Your task to perform on an android device: change the upload size in google photos Image 0: 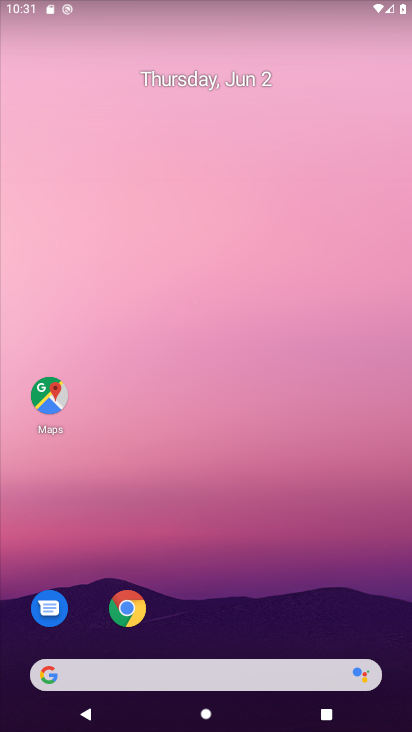
Step 0: drag from (180, 618) to (221, 152)
Your task to perform on an android device: change the upload size in google photos Image 1: 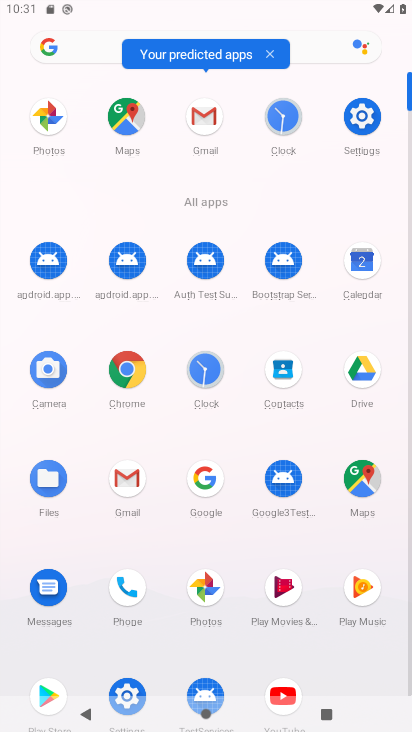
Step 1: click (210, 576)
Your task to perform on an android device: change the upload size in google photos Image 2: 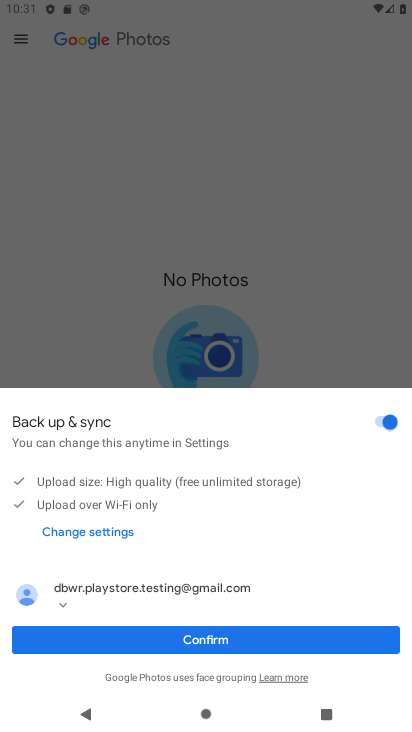
Step 2: drag from (220, 481) to (212, 317)
Your task to perform on an android device: change the upload size in google photos Image 3: 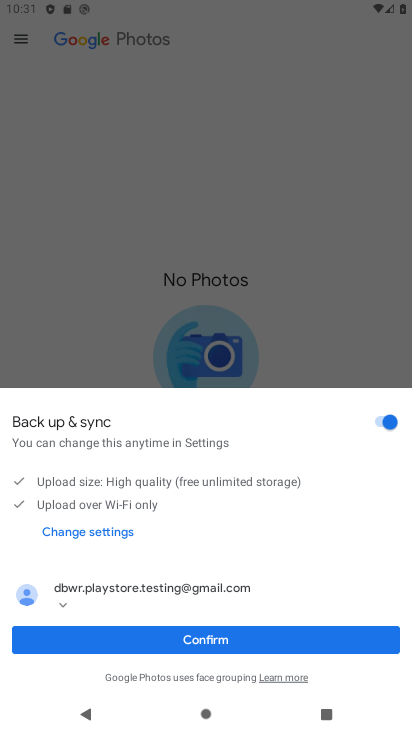
Step 3: click (224, 643)
Your task to perform on an android device: change the upload size in google photos Image 4: 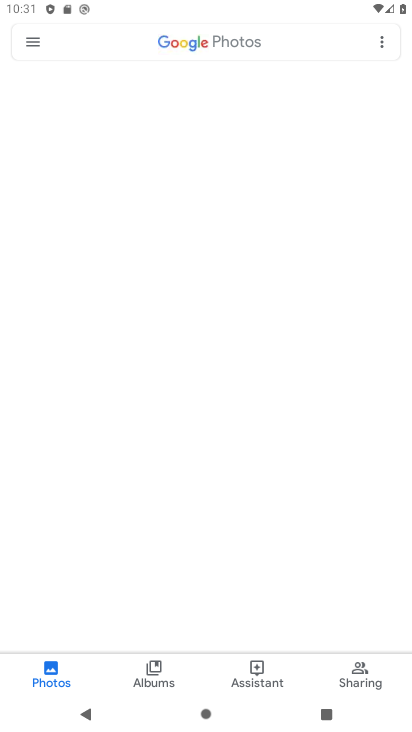
Step 4: click (10, 20)
Your task to perform on an android device: change the upload size in google photos Image 5: 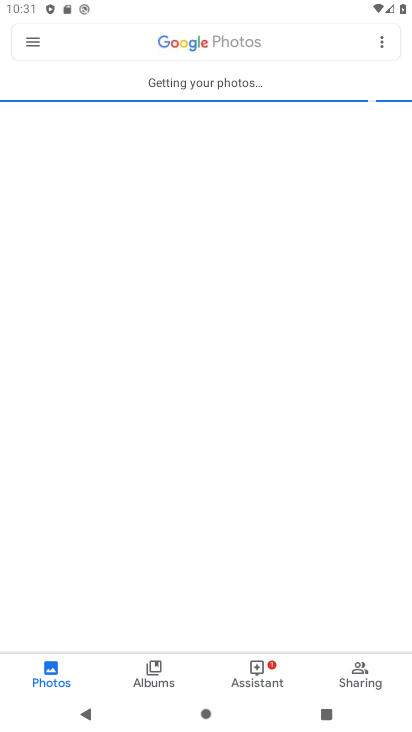
Step 5: click (35, 39)
Your task to perform on an android device: change the upload size in google photos Image 6: 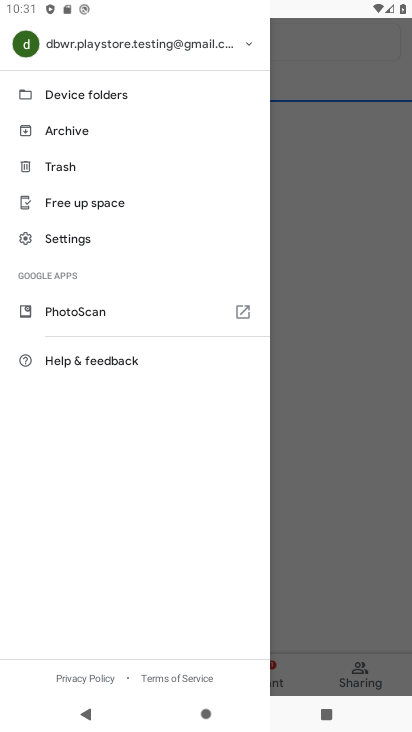
Step 6: click (100, 245)
Your task to perform on an android device: change the upload size in google photos Image 7: 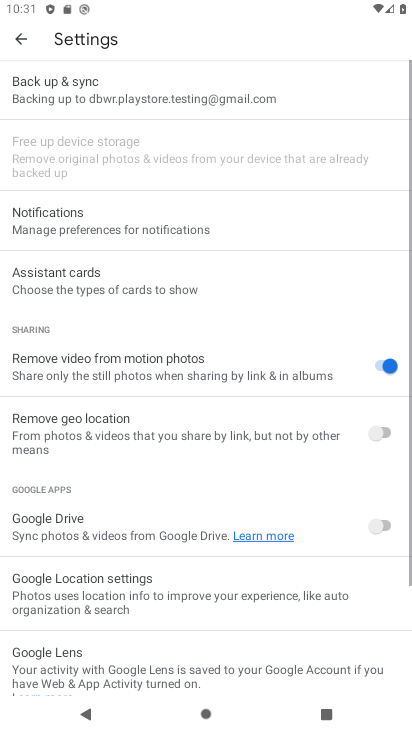
Step 7: drag from (167, 550) to (185, 29)
Your task to perform on an android device: change the upload size in google photos Image 8: 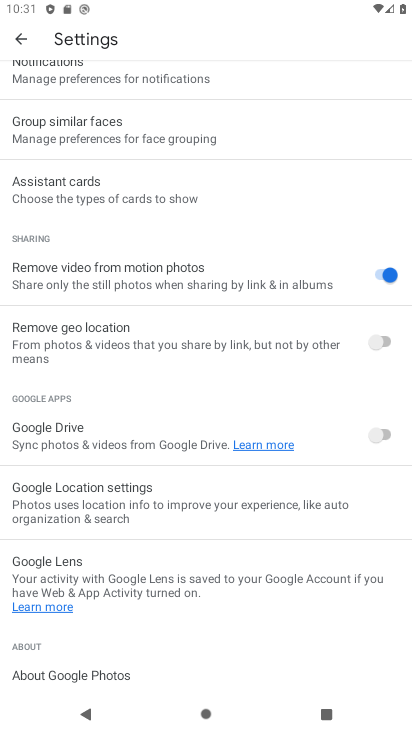
Step 8: drag from (146, 227) to (224, 702)
Your task to perform on an android device: change the upload size in google photos Image 9: 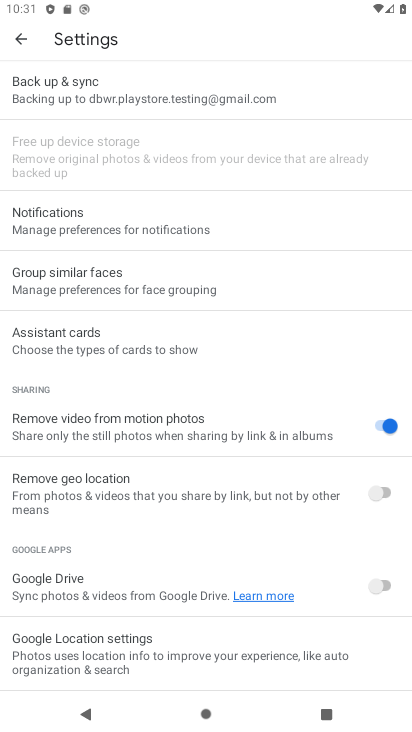
Step 9: click (87, 92)
Your task to perform on an android device: change the upload size in google photos Image 10: 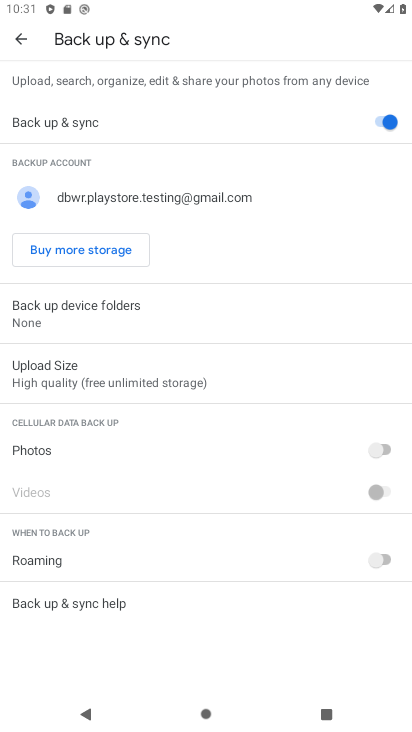
Step 10: click (93, 369)
Your task to perform on an android device: change the upload size in google photos Image 11: 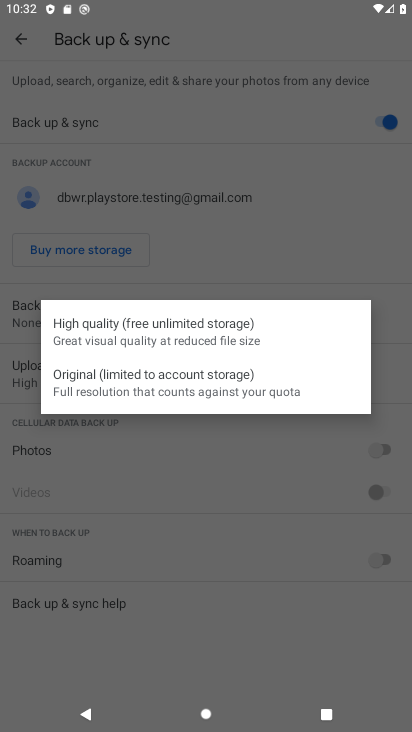
Step 11: click (175, 333)
Your task to perform on an android device: change the upload size in google photos Image 12: 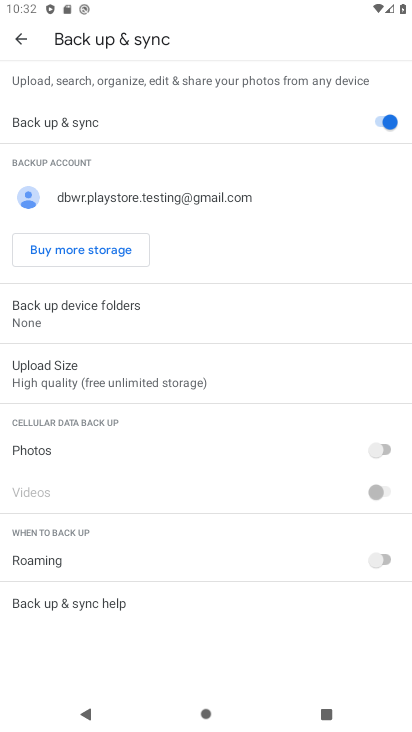
Step 12: task complete